Your task to perform on an android device: create a new album in the google photos Image 0: 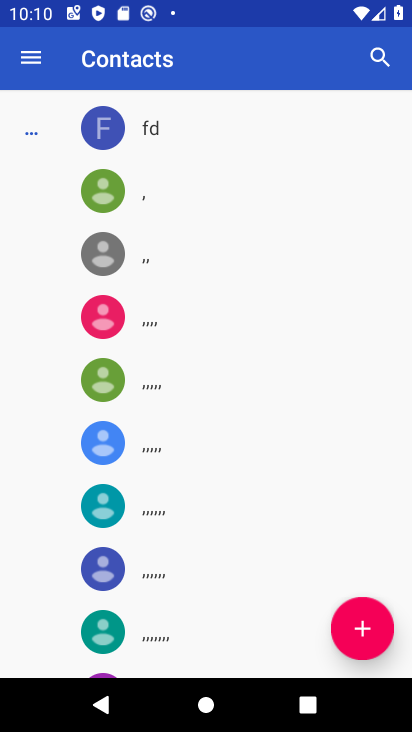
Step 0: press back button
Your task to perform on an android device: create a new album in the google photos Image 1: 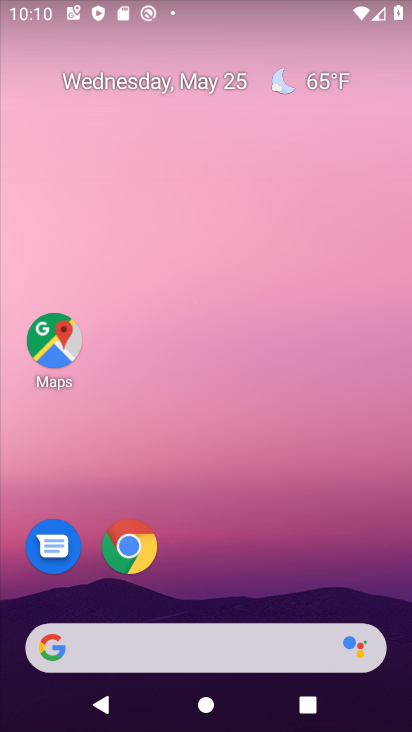
Step 1: drag from (232, 573) to (206, 11)
Your task to perform on an android device: create a new album in the google photos Image 2: 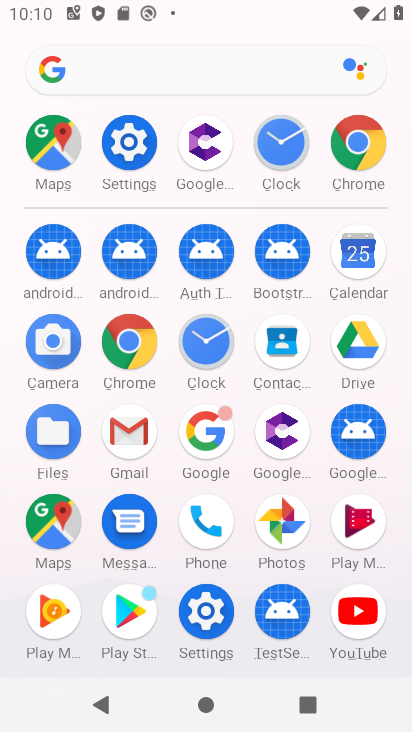
Step 2: click (283, 521)
Your task to perform on an android device: create a new album in the google photos Image 3: 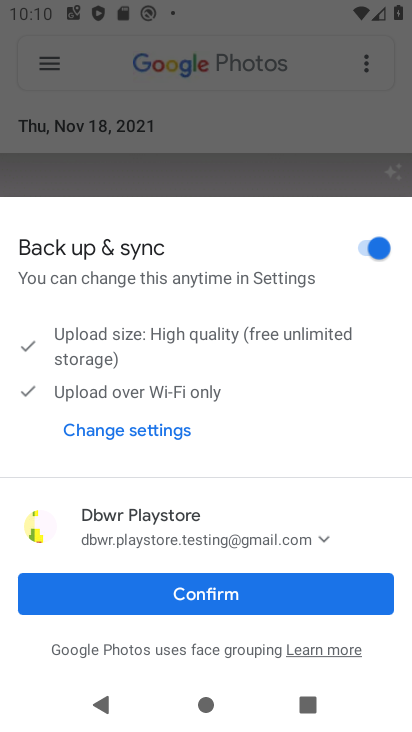
Step 3: click (227, 580)
Your task to perform on an android device: create a new album in the google photos Image 4: 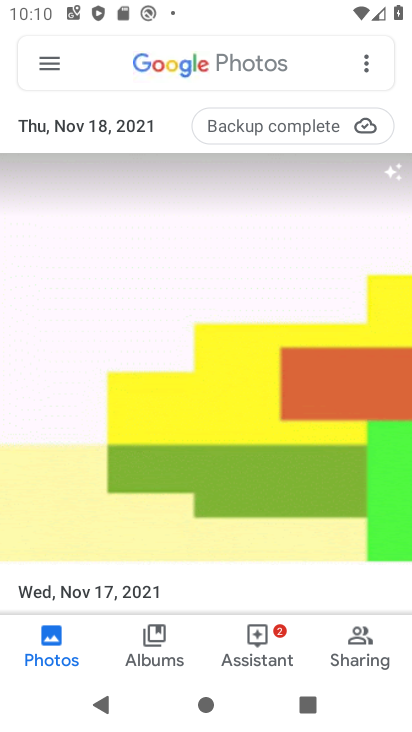
Step 4: drag from (313, 458) to (252, 93)
Your task to perform on an android device: create a new album in the google photos Image 5: 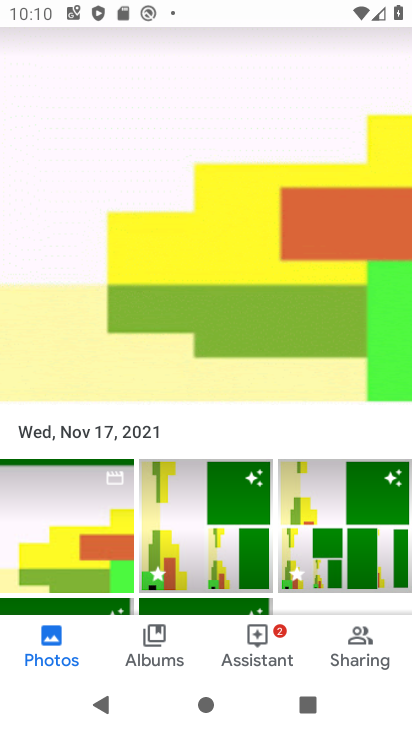
Step 5: click (78, 541)
Your task to perform on an android device: create a new album in the google photos Image 6: 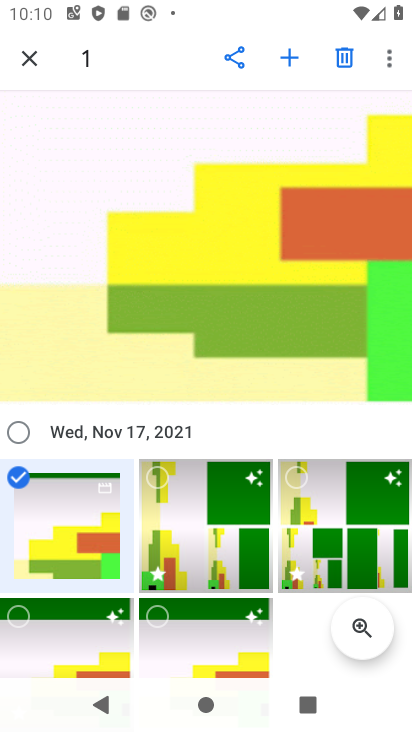
Step 6: click (296, 40)
Your task to perform on an android device: create a new album in the google photos Image 7: 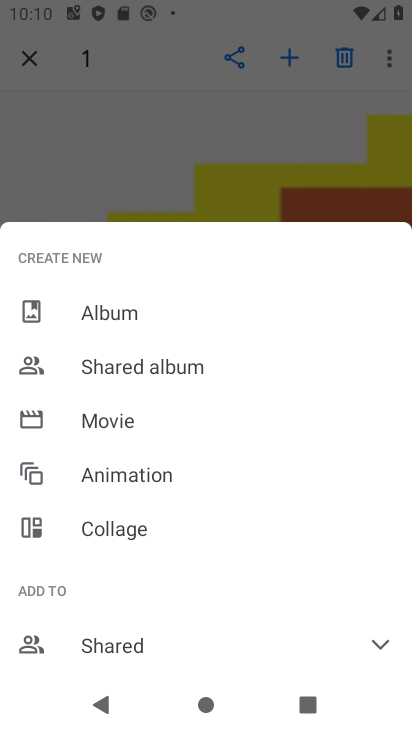
Step 7: click (136, 305)
Your task to perform on an android device: create a new album in the google photos Image 8: 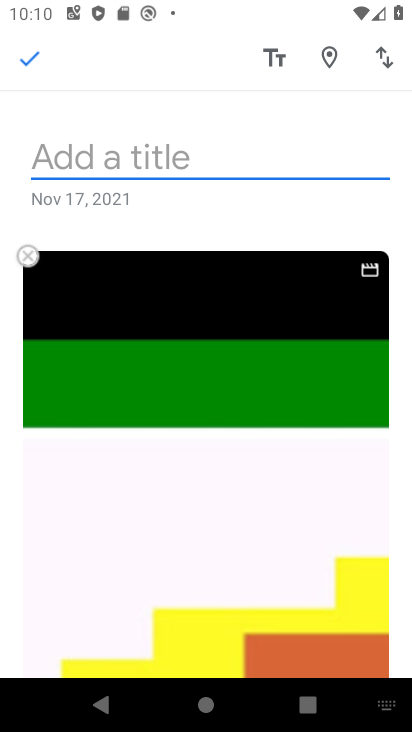
Step 8: type "sdfgh"
Your task to perform on an android device: create a new album in the google photos Image 9: 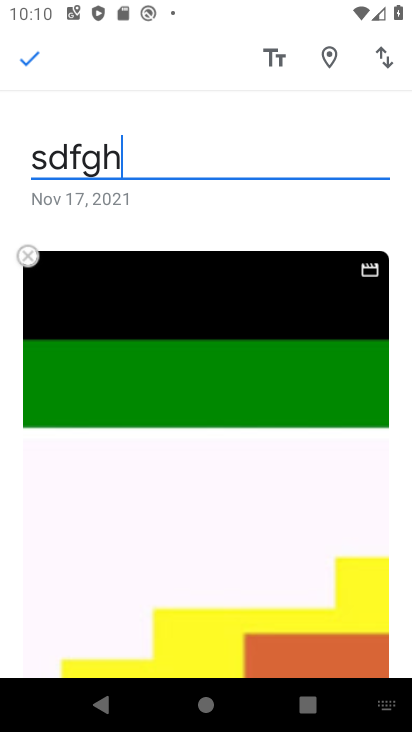
Step 9: type ""
Your task to perform on an android device: create a new album in the google photos Image 10: 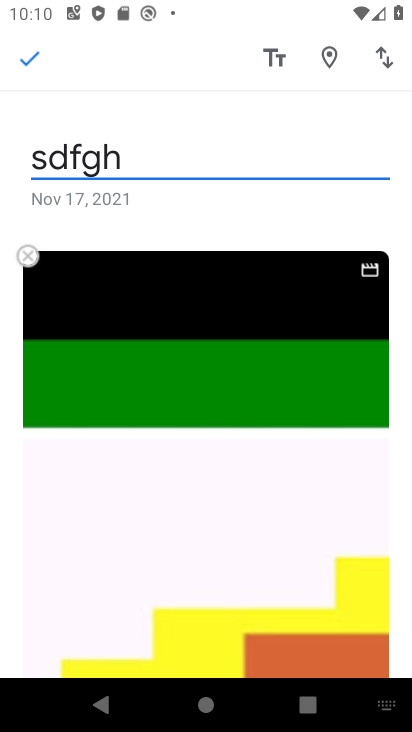
Step 10: click (44, 65)
Your task to perform on an android device: create a new album in the google photos Image 11: 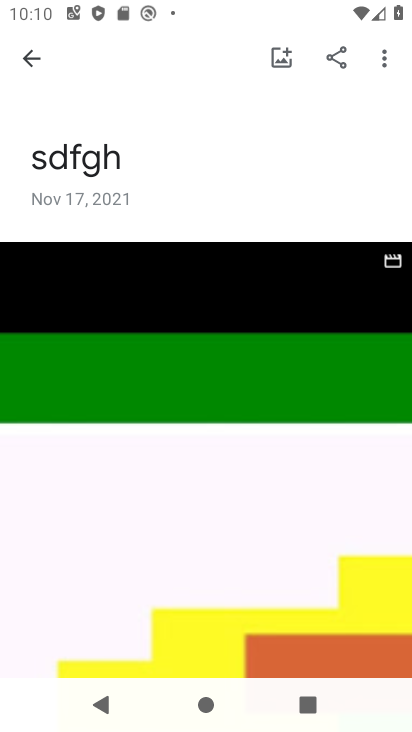
Step 11: task complete